Your task to perform on an android device: Show me popular videos on Youtube Image 0: 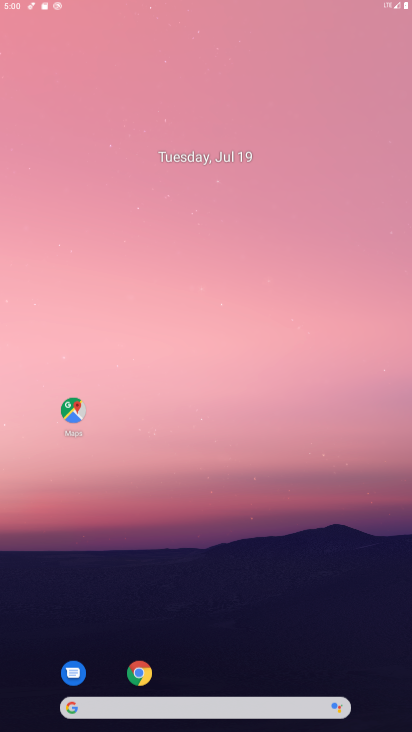
Step 0: press home button
Your task to perform on an android device: Show me popular videos on Youtube Image 1: 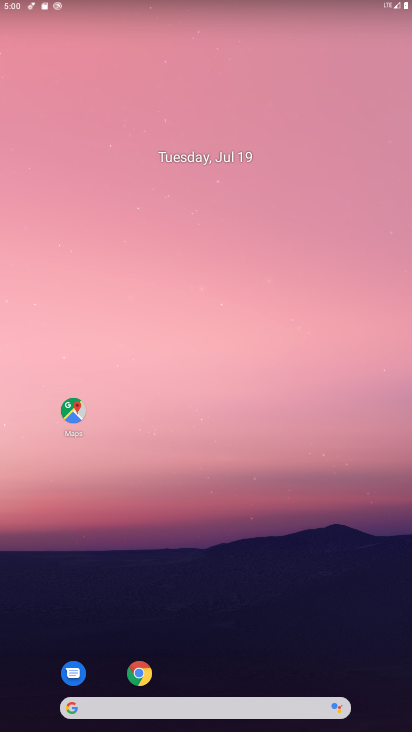
Step 1: drag from (230, 656) to (242, 55)
Your task to perform on an android device: Show me popular videos on Youtube Image 2: 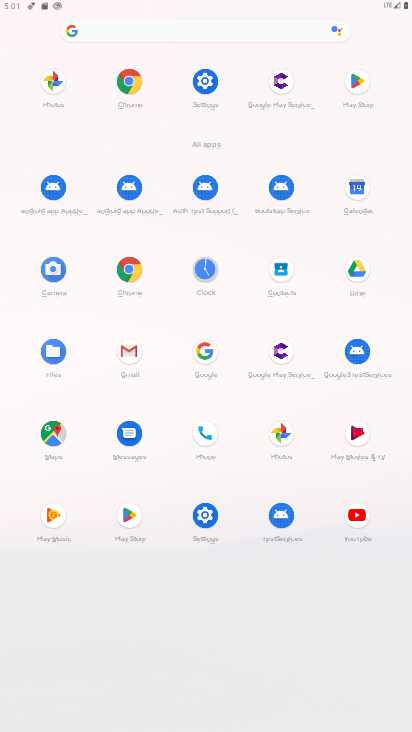
Step 2: click (353, 510)
Your task to perform on an android device: Show me popular videos on Youtube Image 3: 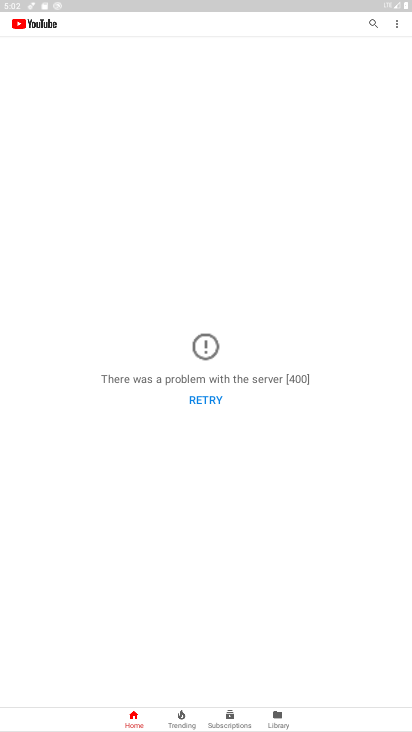
Step 3: click (182, 719)
Your task to perform on an android device: Show me popular videos on Youtube Image 4: 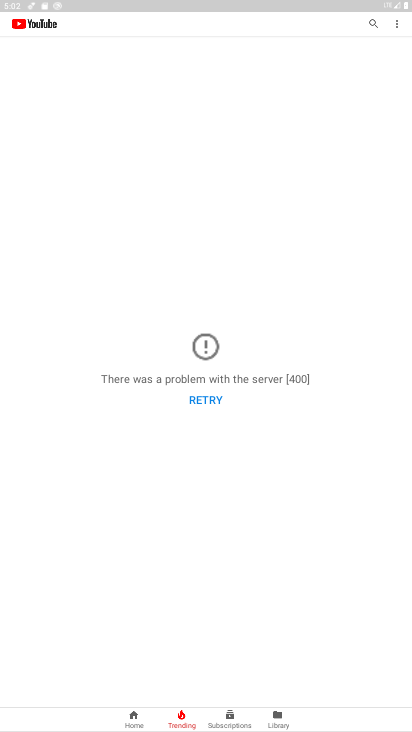
Step 4: task complete